Your task to perform on an android device: open chrome privacy settings Image 0: 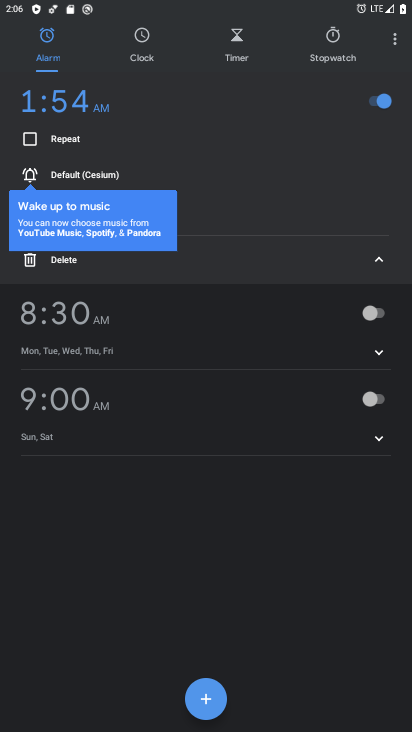
Step 0: press home button
Your task to perform on an android device: open chrome privacy settings Image 1: 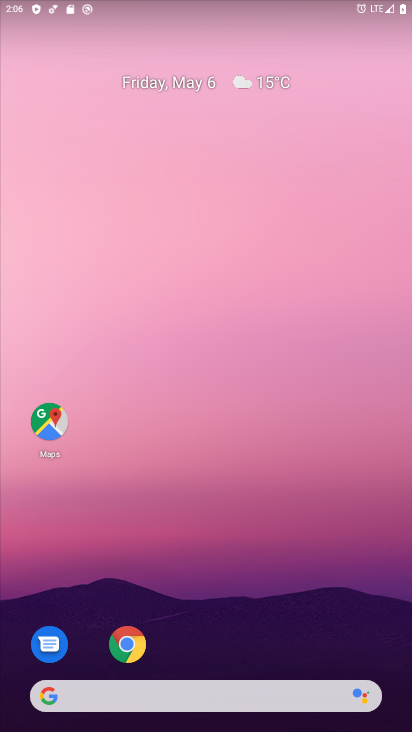
Step 1: click (131, 640)
Your task to perform on an android device: open chrome privacy settings Image 2: 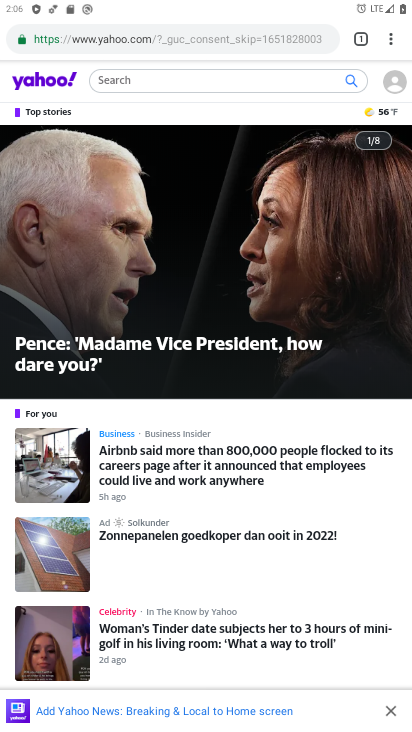
Step 2: drag from (393, 50) to (261, 468)
Your task to perform on an android device: open chrome privacy settings Image 3: 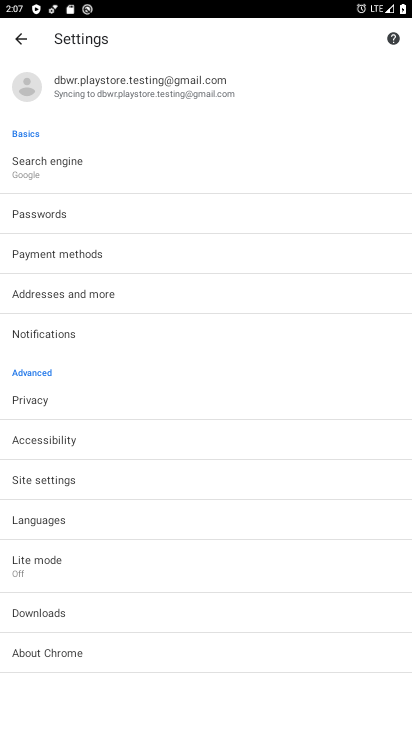
Step 3: click (193, 397)
Your task to perform on an android device: open chrome privacy settings Image 4: 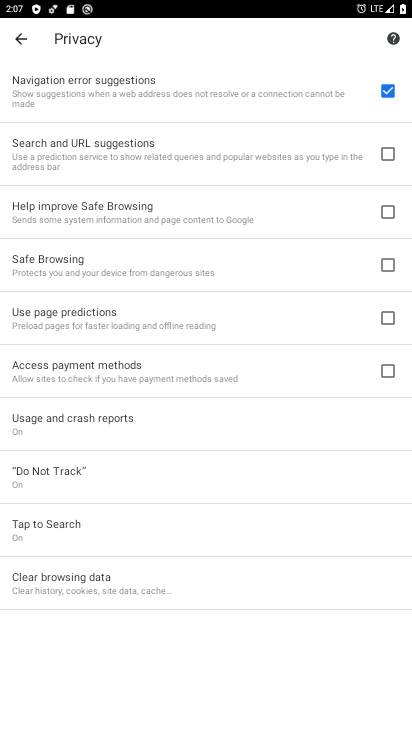
Step 4: task complete